Your task to perform on an android device: show emergency info Image 0: 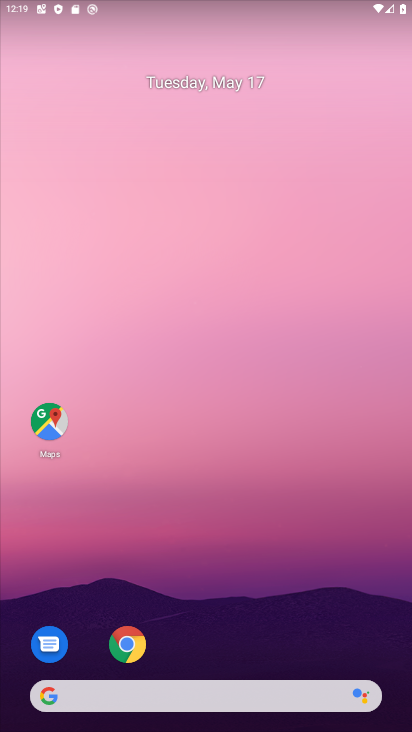
Step 0: drag from (204, 666) to (301, 55)
Your task to perform on an android device: show emergency info Image 1: 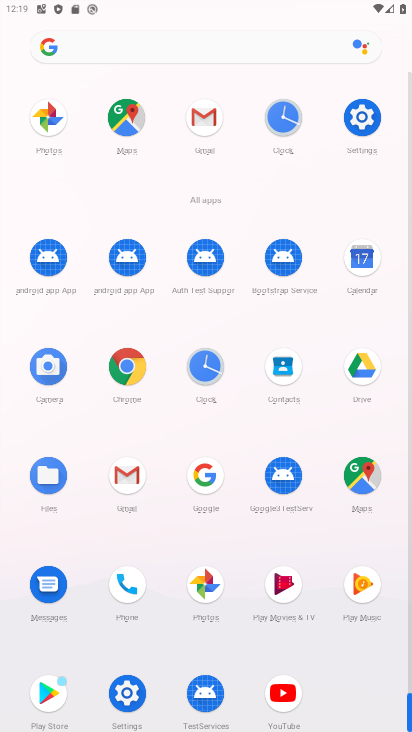
Step 1: click (129, 694)
Your task to perform on an android device: show emergency info Image 2: 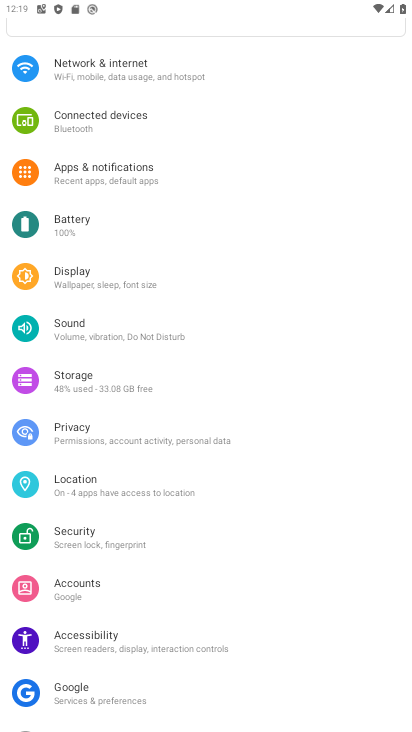
Step 2: drag from (196, 652) to (355, 11)
Your task to perform on an android device: show emergency info Image 3: 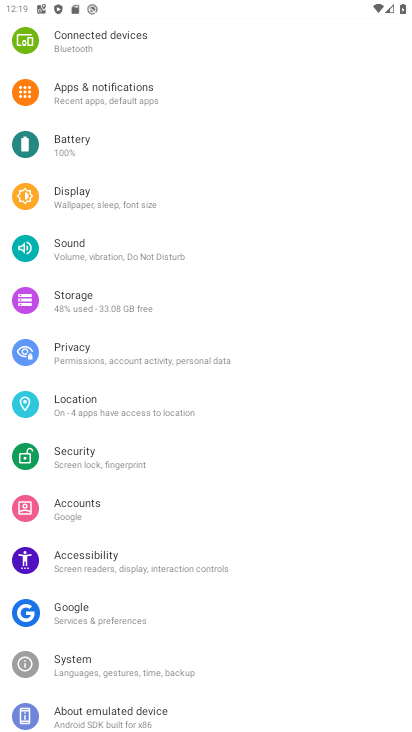
Step 3: click (173, 718)
Your task to perform on an android device: show emergency info Image 4: 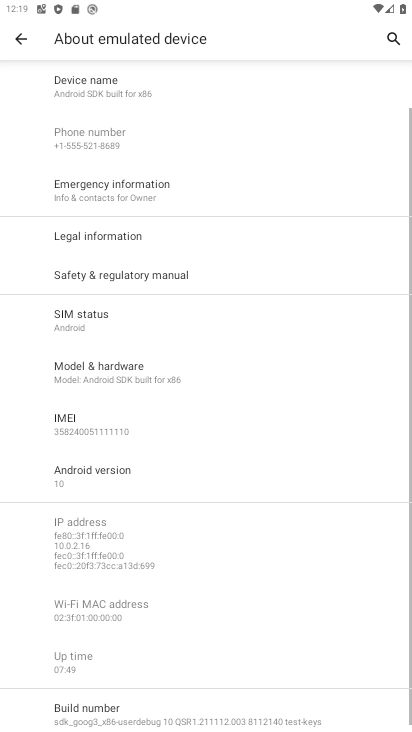
Step 4: click (166, 202)
Your task to perform on an android device: show emergency info Image 5: 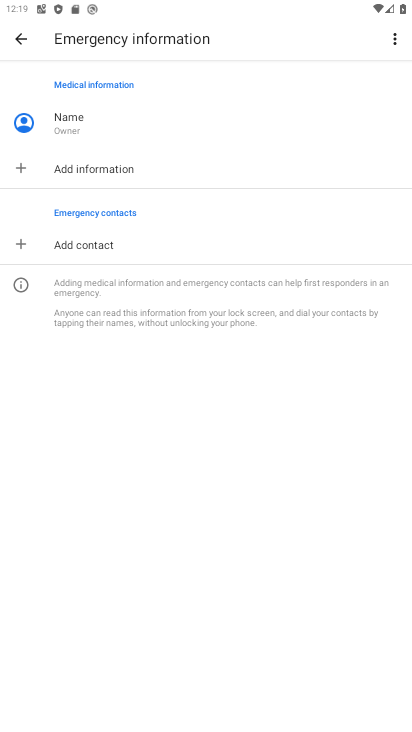
Step 5: task complete